Your task to perform on an android device: turn on improve location accuracy Image 0: 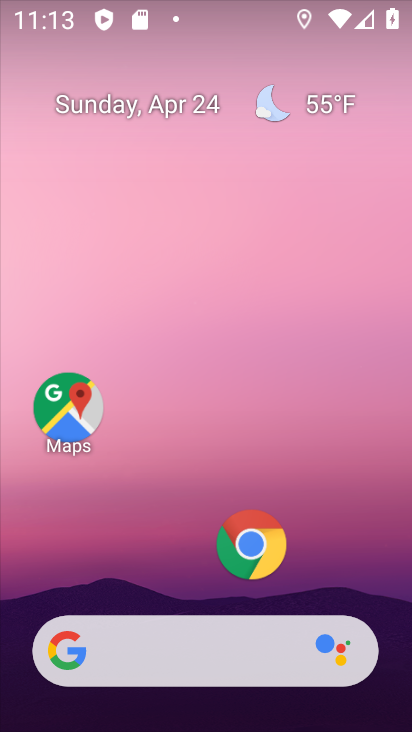
Step 0: drag from (171, 541) to (226, 101)
Your task to perform on an android device: turn on improve location accuracy Image 1: 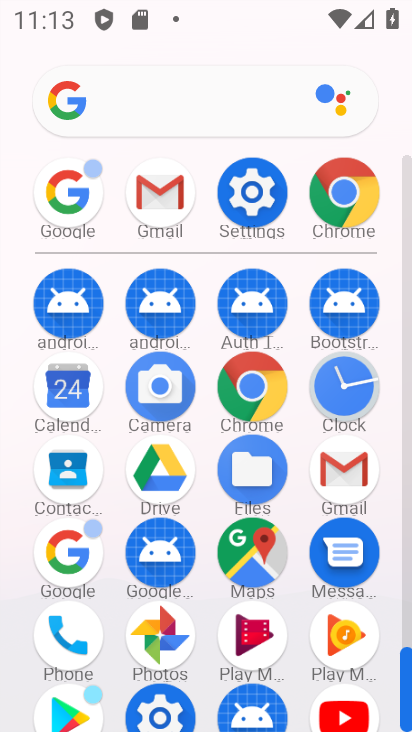
Step 1: click (261, 199)
Your task to perform on an android device: turn on improve location accuracy Image 2: 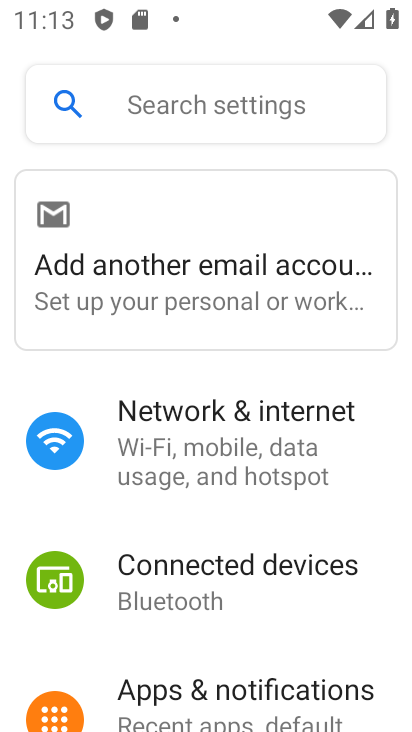
Step 2: drag from (234, 641) to (246, 308)
Your task to perform on an android device: turn on improve location accuracy Image 3: 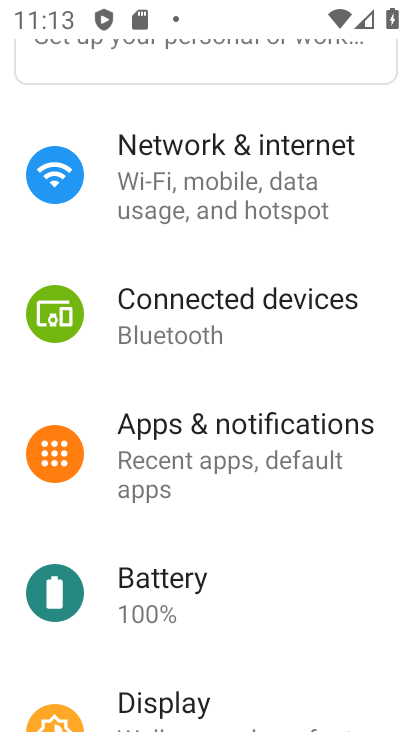
Step 3: drag from (237, 607) to (279, 315)
Your task to perform on an android device: turn on improve location accuracy Image 4: 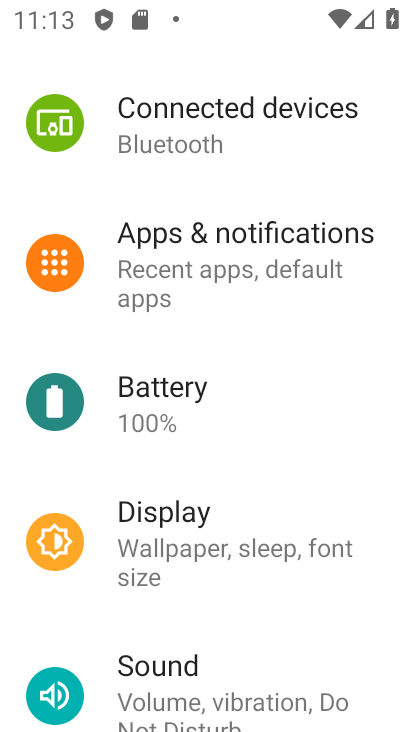
Step 4: drag from (233, 600) to (273, 303)
Your task to perform on an android device: turn on improve location accuracy Image 5: 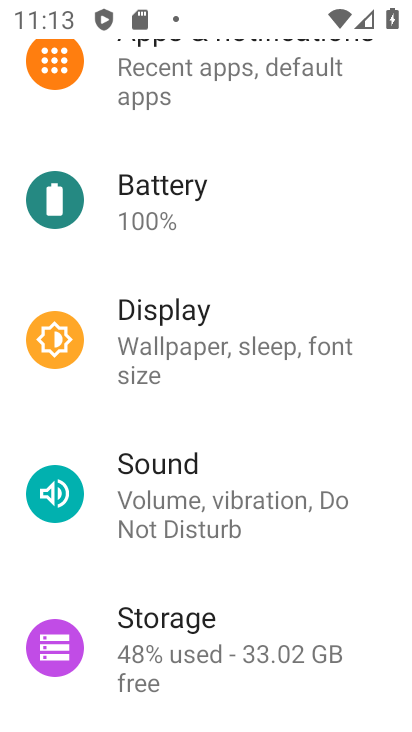
Step 5: drag from (270, 550) to (297, 259)
Your task to perform on an android device: turn on improve location accuracy Image 6: 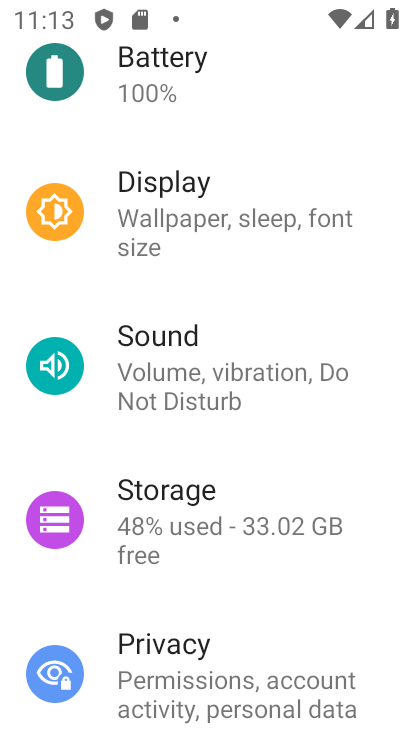
Step 6: drag from (263, 514) to (325, 241)
Your task to perform on an android device: turn on improve location accuracy Image 7: 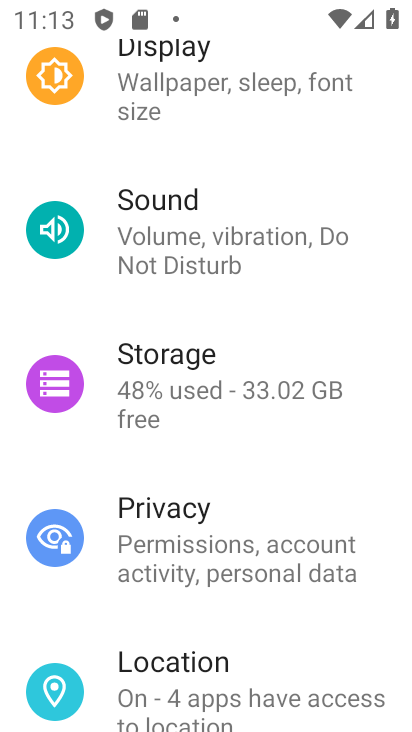
Step 7: click (211, 668)
Your task to perform on an android device: turn on improve location accuracy Image 8: 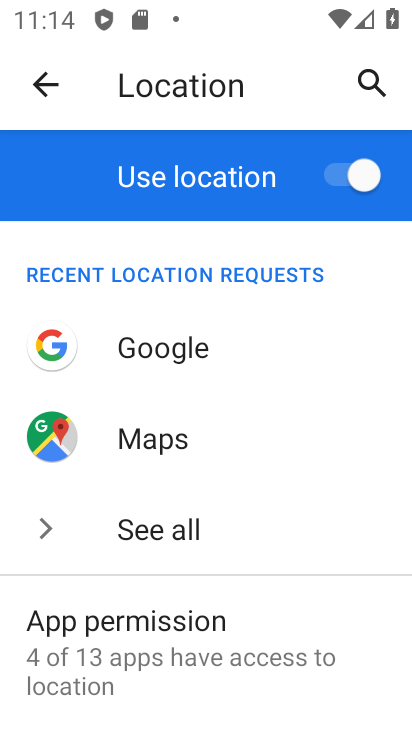
Step 8: drag from (254, 630) to (262, 414)
Your task to perform on an android device: turn on improve location accuracy Image 9: 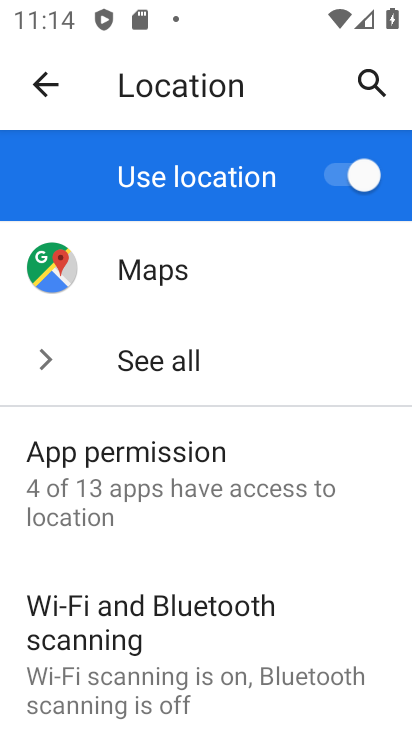
Step 9: drag from (234, 625) to (246, 400)
Your task to perform on an android device: turn on improve location accuracy Image 10: 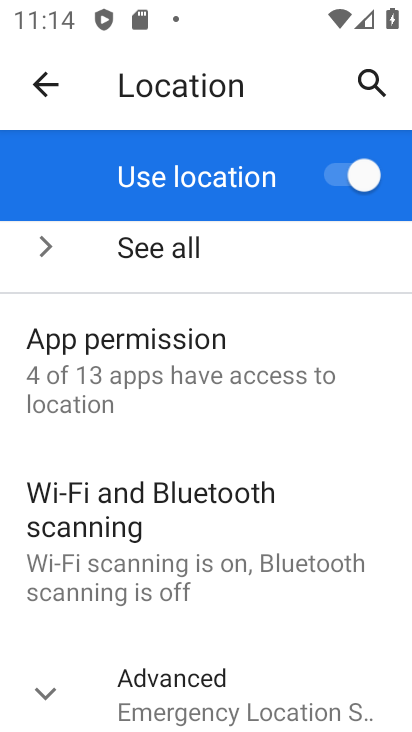
Step 10: drag from (249, 541) to (257, 398)
Your task to perform on an android device: turn on improve location accuracy Image 11: 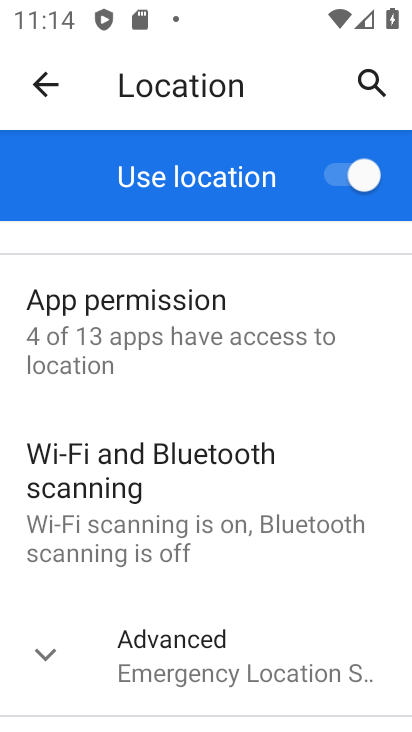
Step 11: drag from (236, 623) to (266, 360)
Your task to perform on an android device: turn on improve location accuracy Image 12: 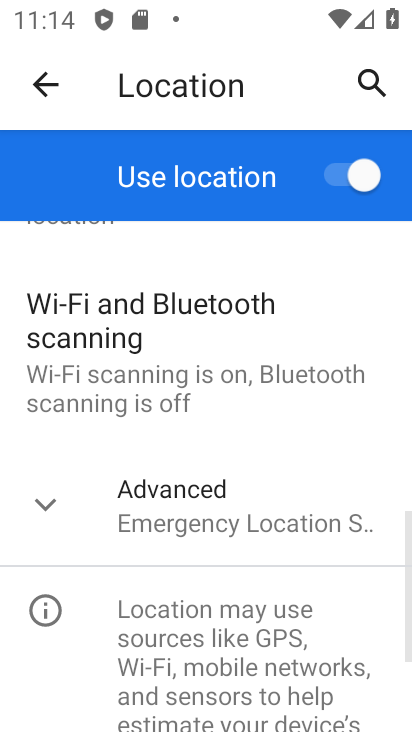
Step 12: drag from (291, 614) to (294, 484)
Your task to perform on an android device: turn on improve location accuracy Image 13: 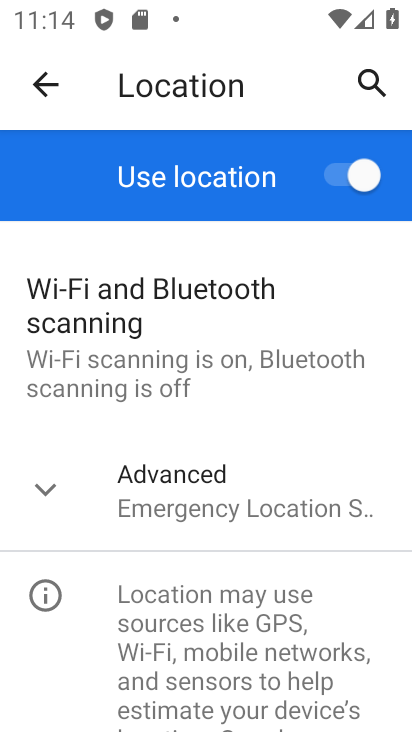
Step 13: click (264, 469)
Your task to perform on an android device: turn on improve location accuracy Image 14: 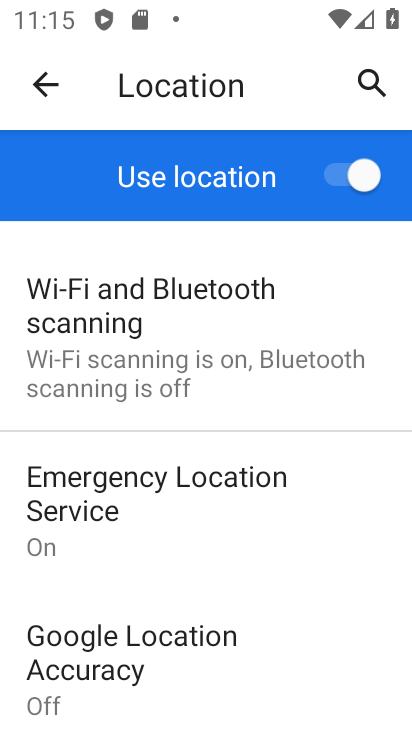
Step 14: drag from (233, 574) to (263, 425)
Your task to perform on an android device: turn on improve location accuracy Image 15: 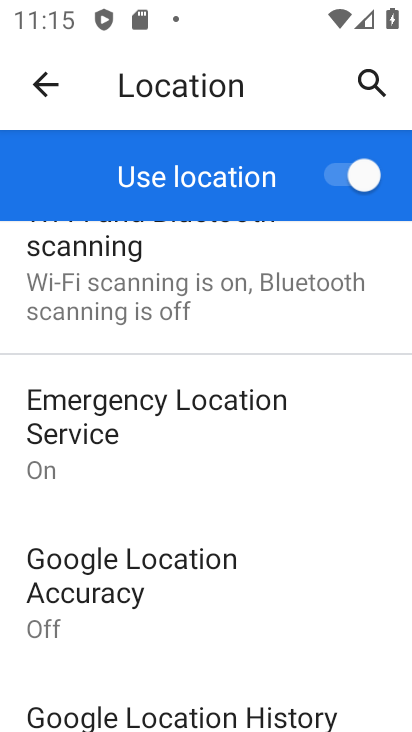
Step 15: click (179, 560)
Your task to perform on an android device: turn on improve location accuracy Image 16: 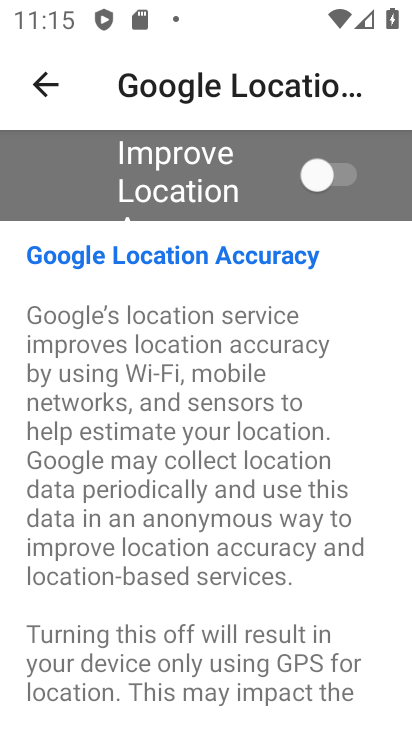
Step 16: click (342, 170)
Your task to perform on an android device: turn on improve location accuracy Image 17: 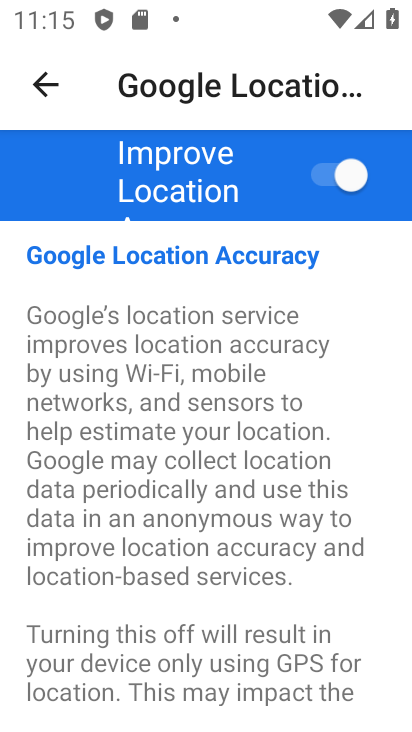
Step 17: task complete